Your task to perform on an android device: Add dell xps to the cart on amazon.com Image 0: 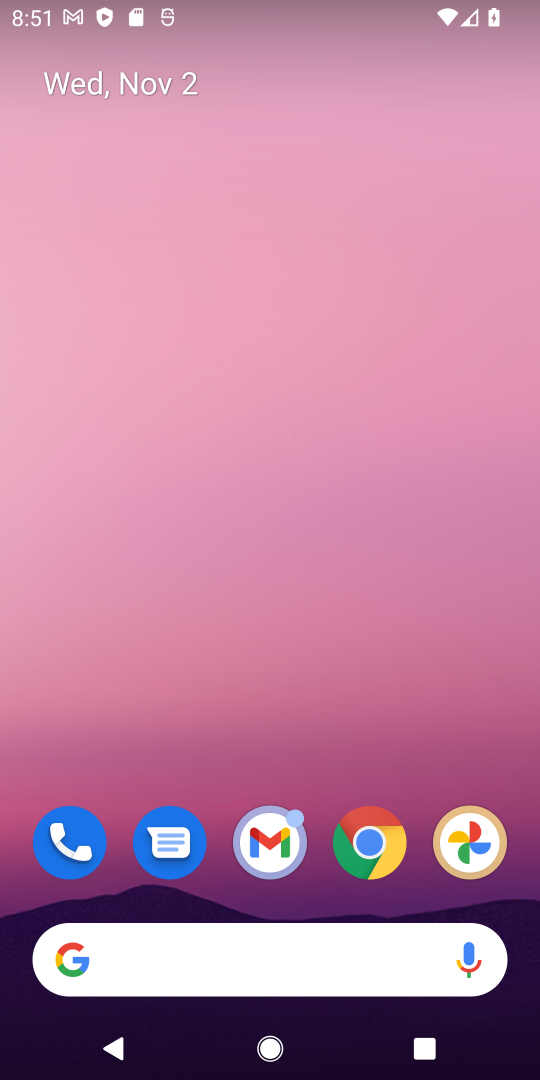
Step 0: drag from (412, 720) to (362, 186)
Your task to perform on an android device: Add dell xps to the cart on amazon.com Image 1: 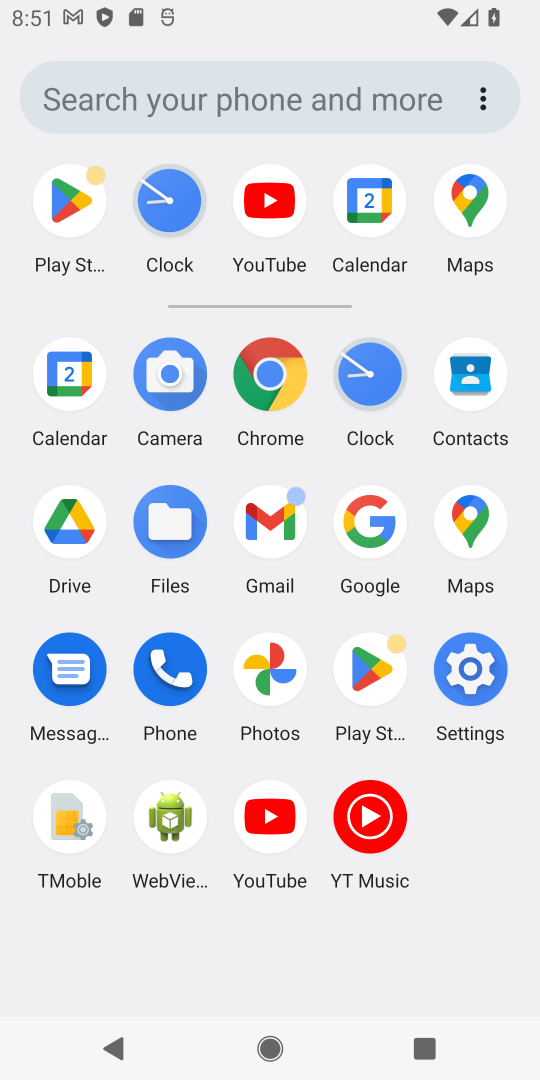
Step 1: click (360, 531)
Your task to perform on an android device: Add dell xps to the cart on amazon.com Image 2: 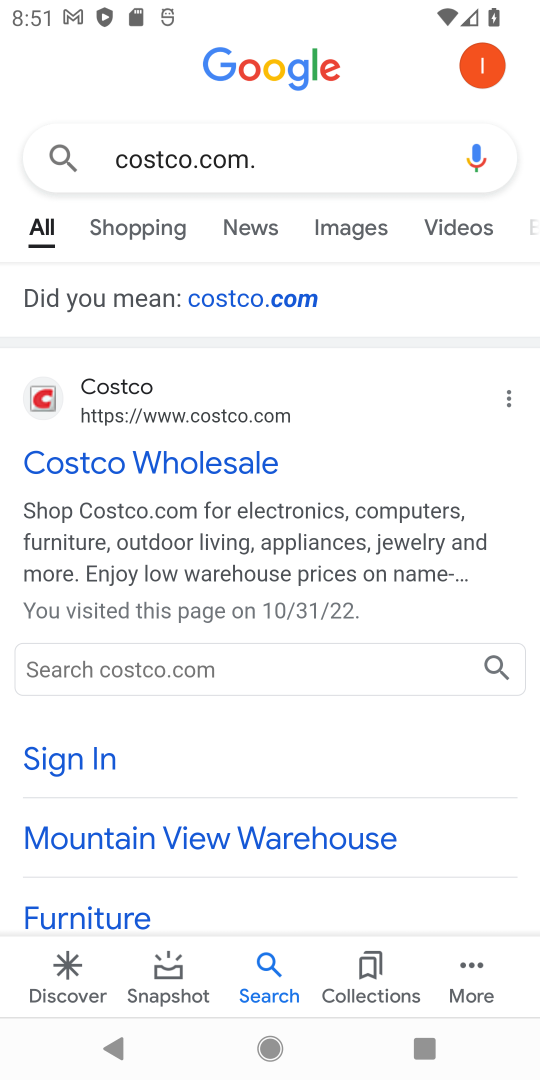
Step 2: click (335, 161)
Your task to perform on an android device: Add dell xps to the cart on amazon.com Image 3: 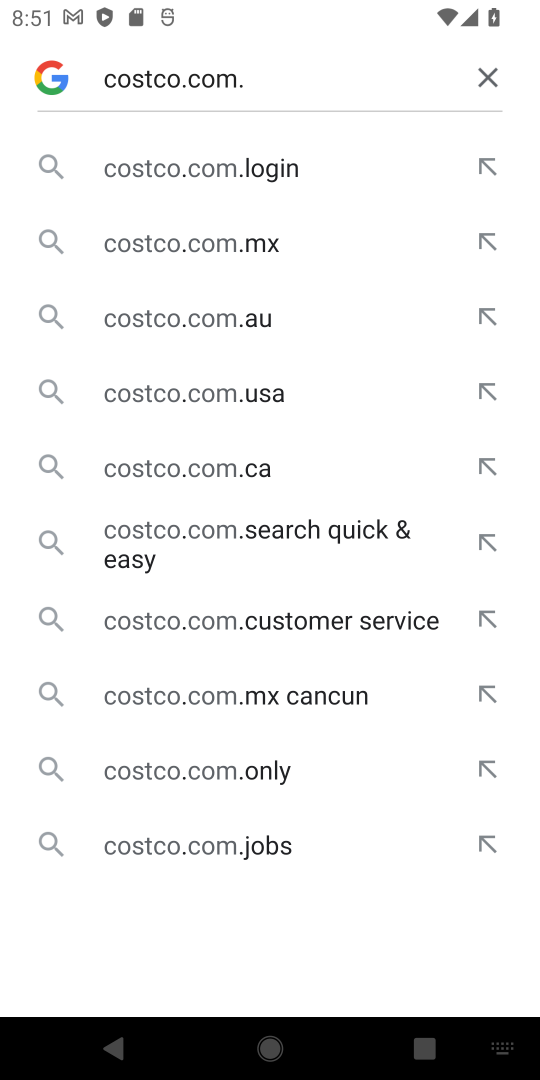
Step 3: click (503, 60)
Your task to perform on an android device: Add dell xps to the cart on amazon.com Image 4: 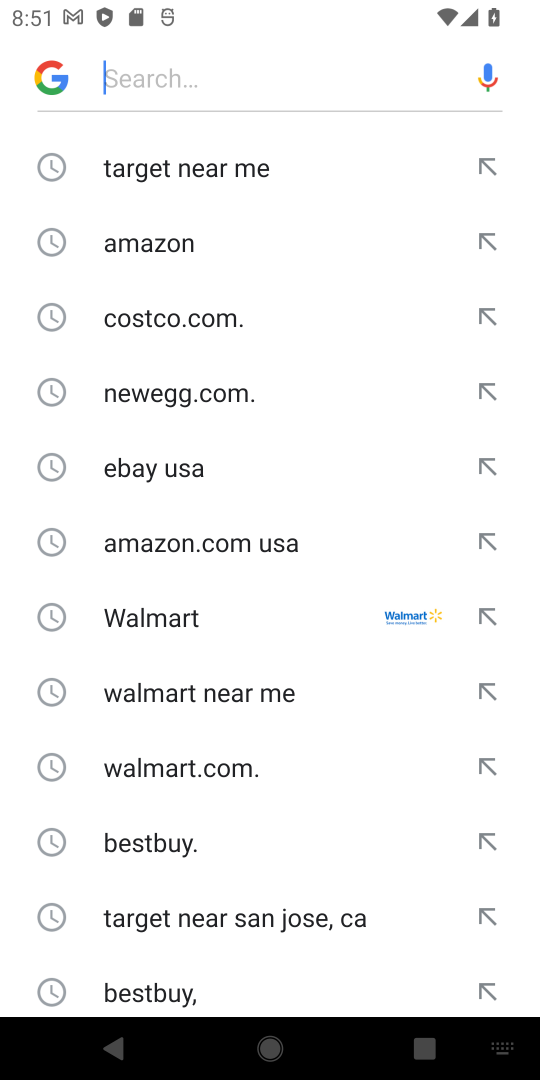
Step 4: click (115, 255)
Your task to perform on an android device: Add dell xps to the cart on amazon.com Image 5: 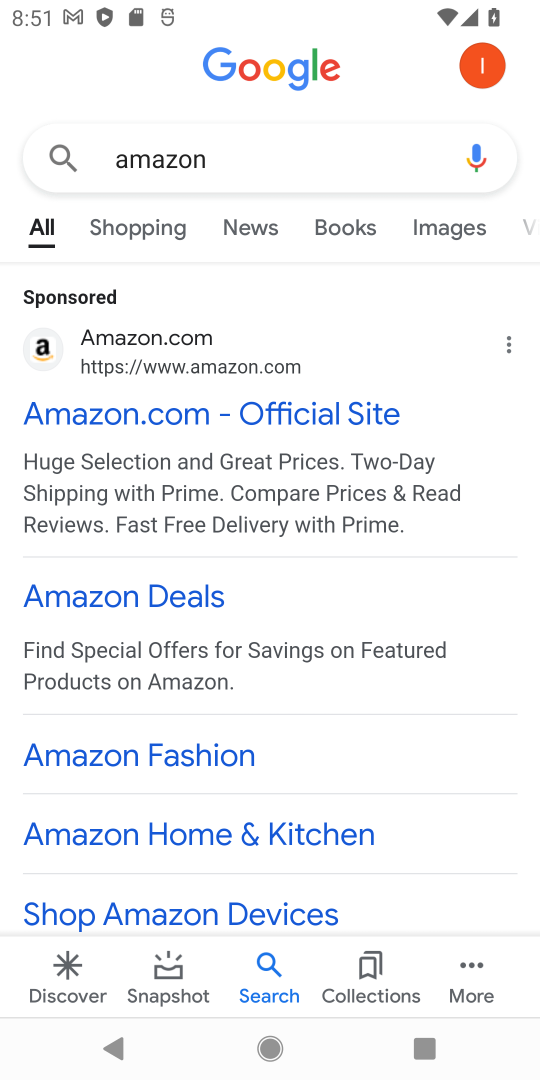
Step 5: click (146, 417)
Your task to perform on an android device: Add dell xps to the cart on amazon.com Image 6: 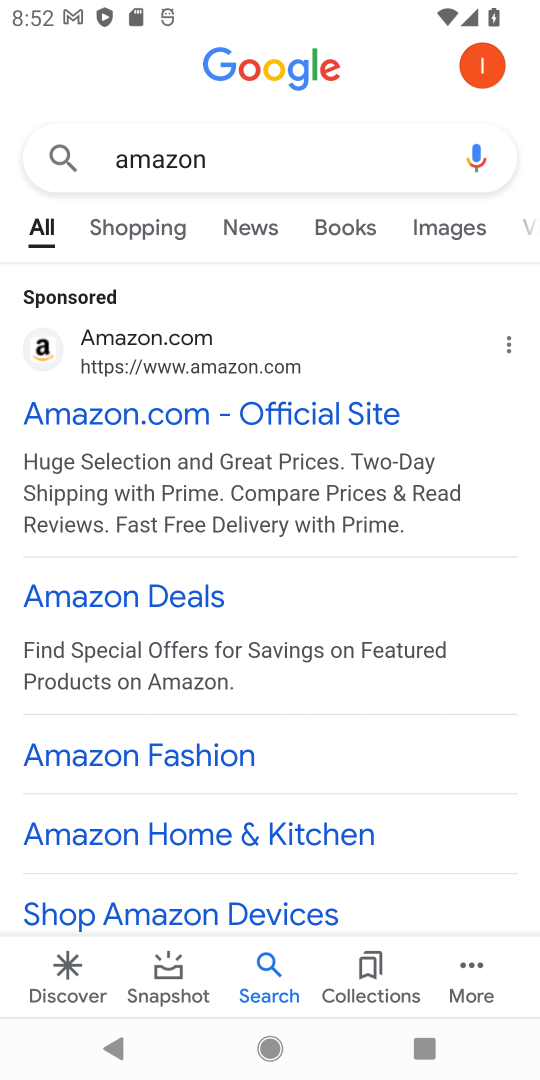
Step 6: click (112, 407)
Your task to perform on an android device: Add dell xps to the cart on amazon.com Image 7: 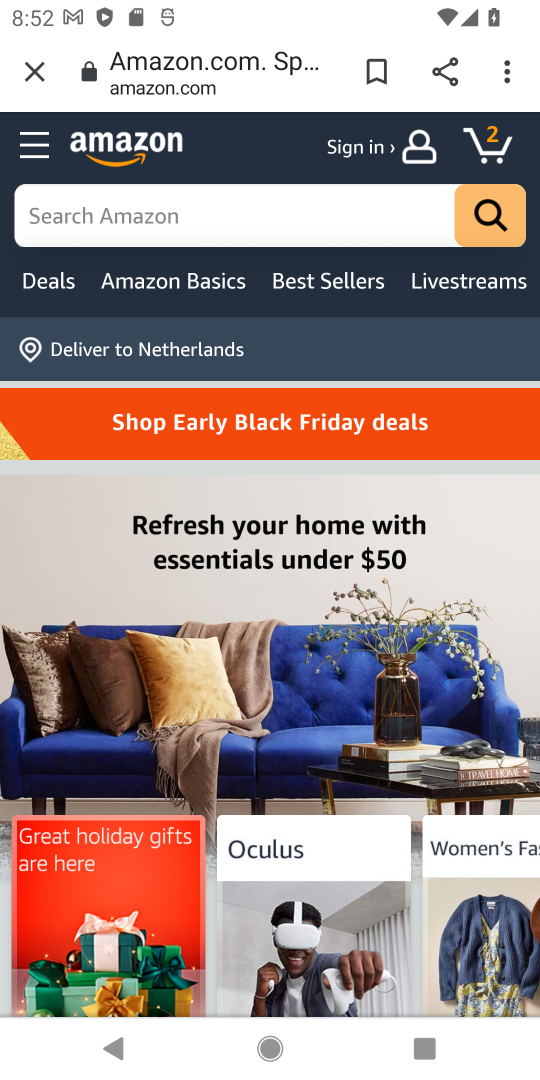
Step 7: click (153, 213)
Your task to perform on an android device: Add dell xps to the cart on amazon.com Image 8: 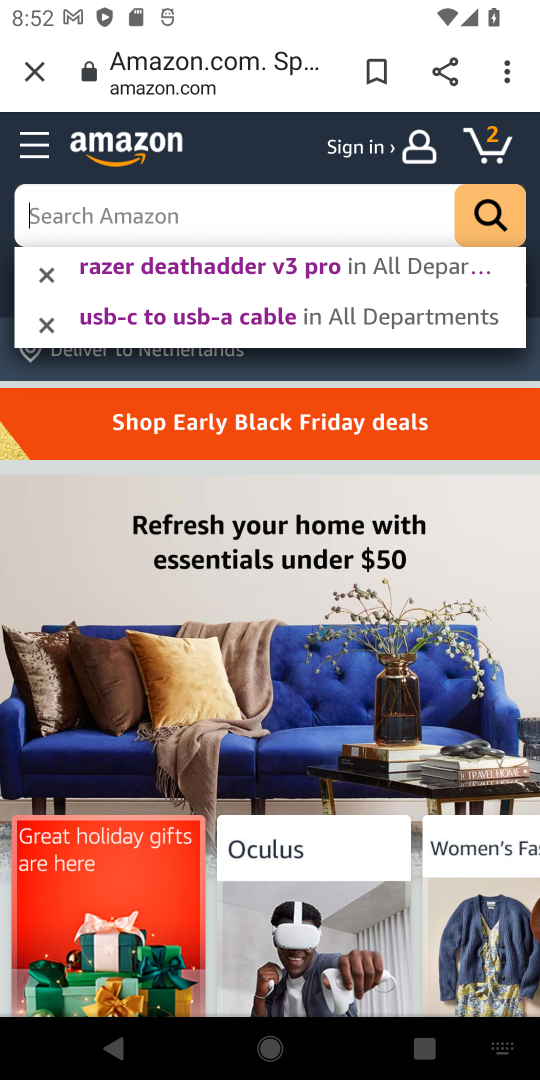
Step 8: type "dell xps  "
Your task to perform on an android device: Add dell xps to the cart on amazon.com Image 9: 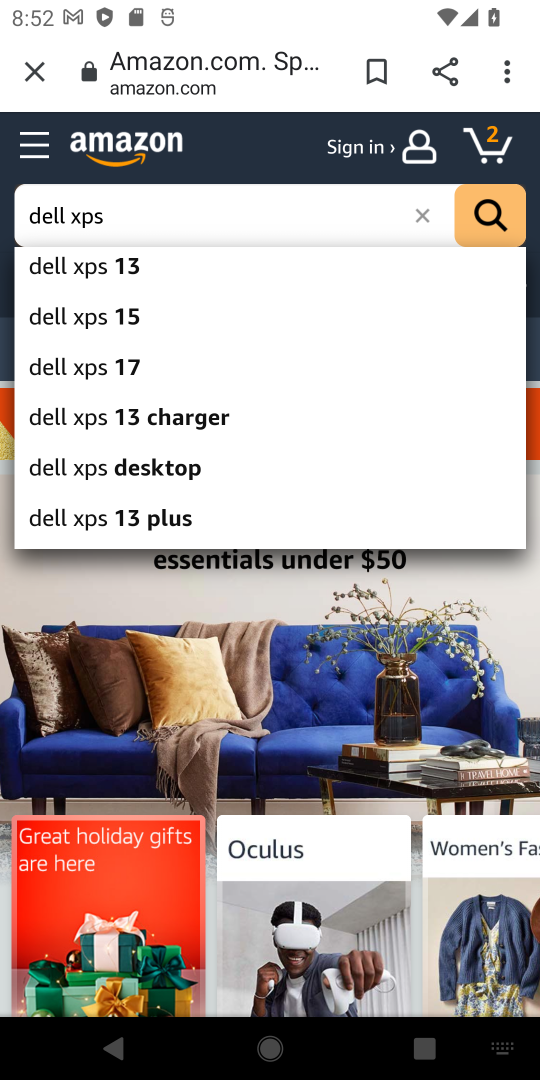
Step 9: click (62, 274)
Your task to perform on an android device: Add dell xps to the cart on amazon.com Image 10: 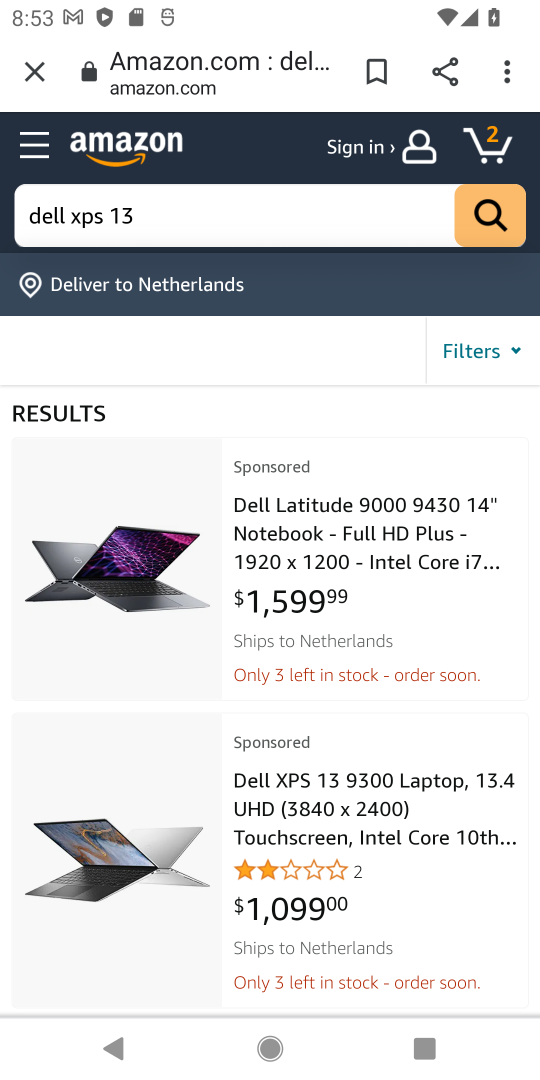
Step 10: click (297, 778)
Your task to perform on an android device: Add dell xps to the cart on amazon.com Image 11: 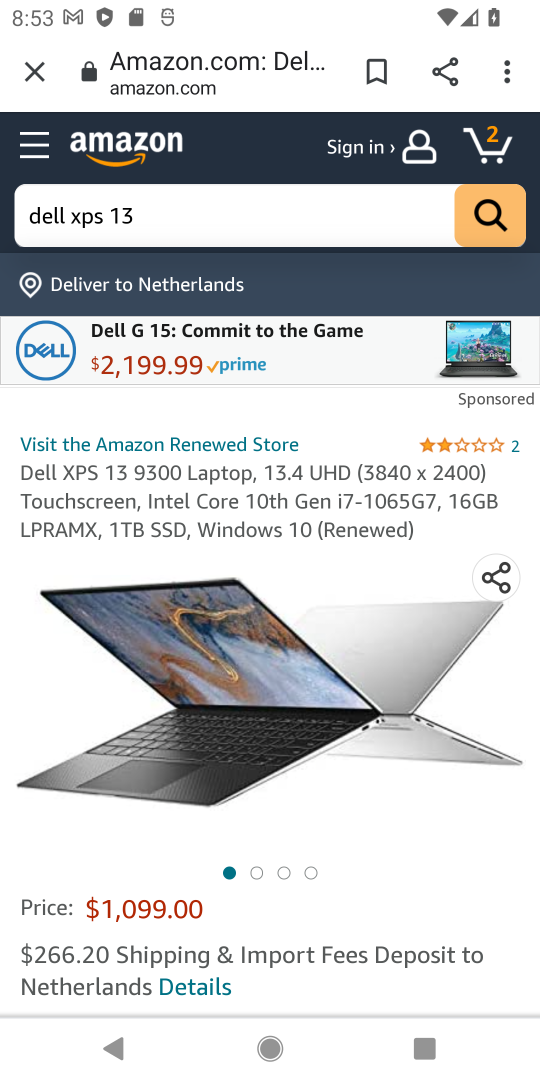
Step 11: drag from (216, 896) to (292, 336)
Your task to perform on an android device: Add dell xps to the cart on amazon.com Image 12: 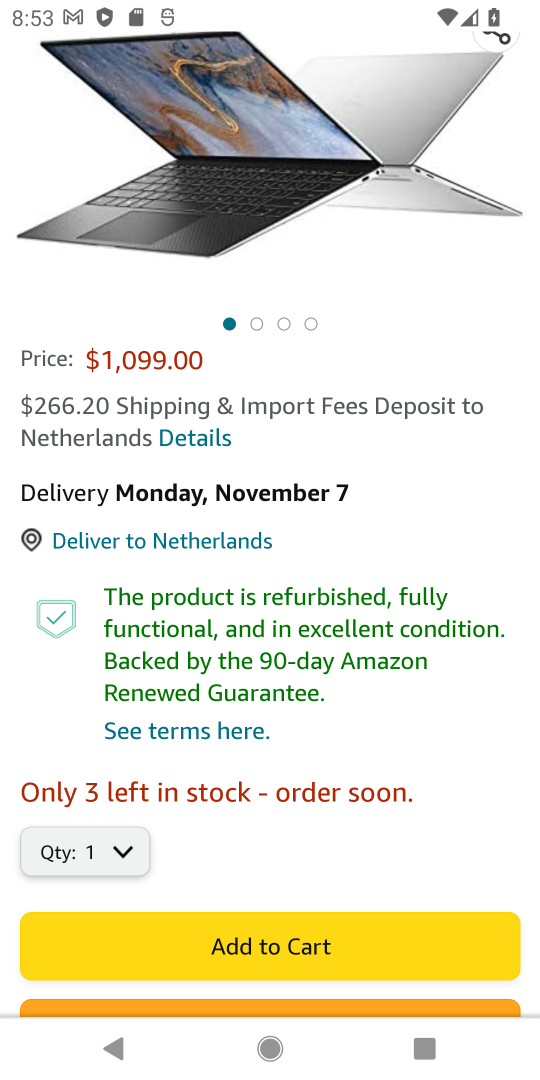
Step 12: click (300, 937)
Your task to perform on an android device: Add dell xps to the cart on amazon.com Image 13: 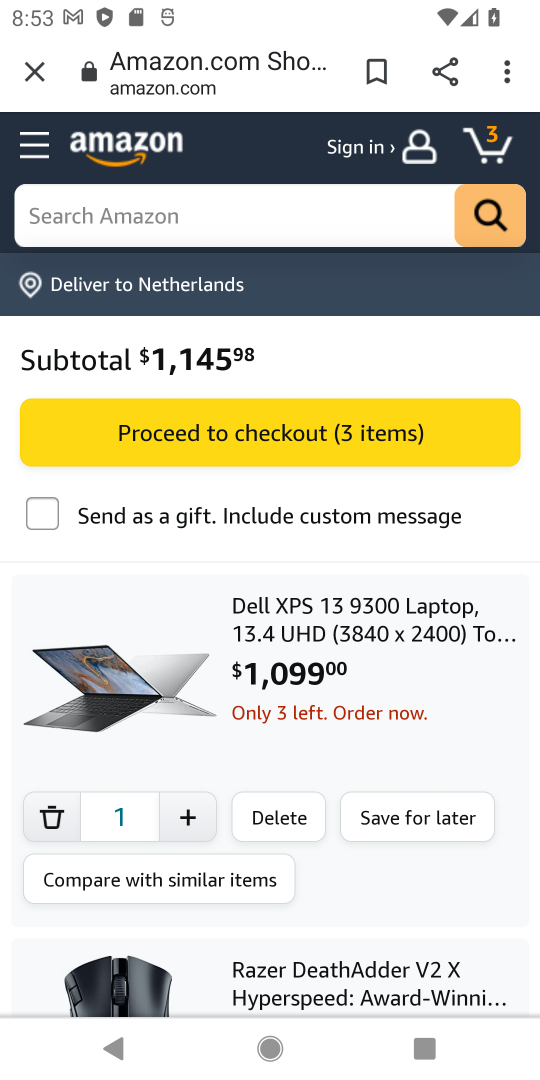
Step 13: task complete